Your task to perform on an android device: Search for Italian restaurants on Maps Image 0: 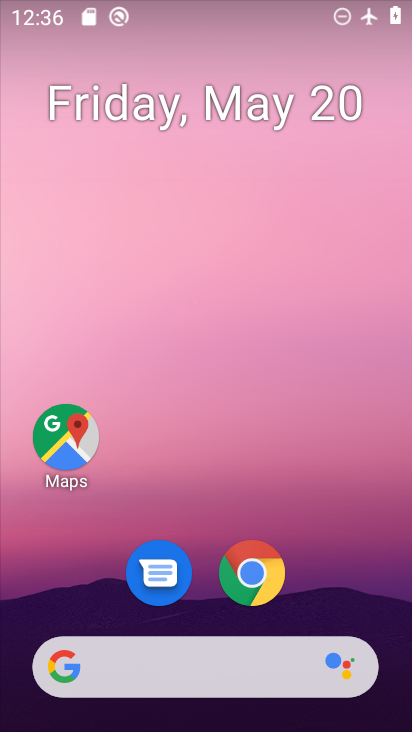
Step 0: drag from (227, 726) to (216, 285)
Your task to perform on an android device: Search for Italian restaurants on Maps Image 1: 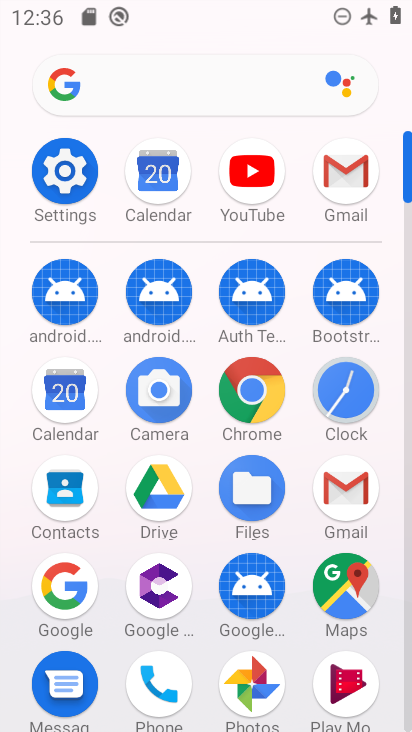
Step 1: click (347, 575)
Your task to perform on an android device: Search for Italian restaurants on Maps Image 2: 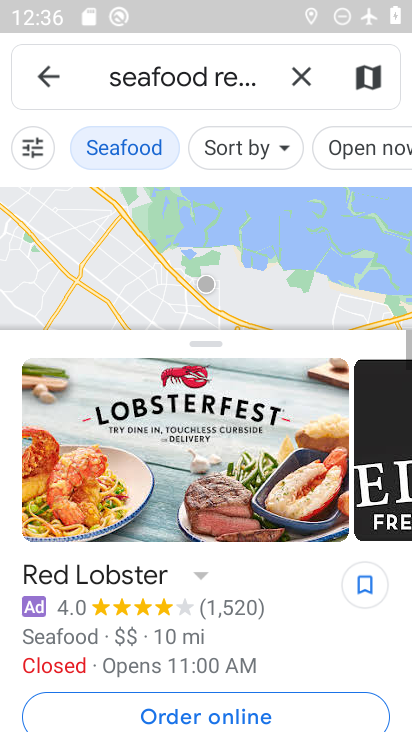
Step 2: click (308, 75)
Your task to perform on an android device: Search for Italian restaurants on Maps Image 3: 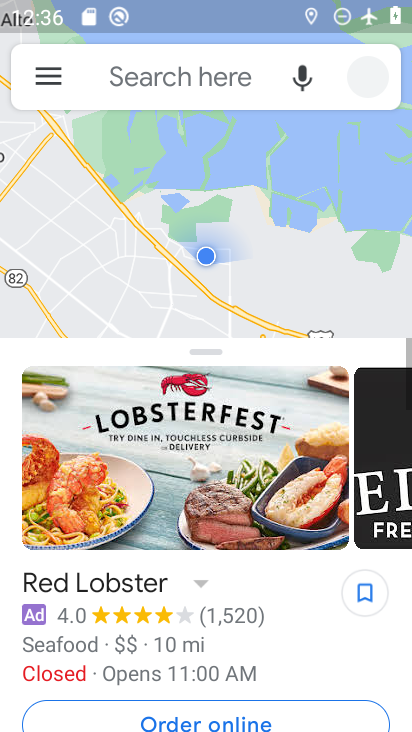
Step 3: click (195, 71)
Your task to perform on an android device: Search for Italian restaurants on Maps Image 4: 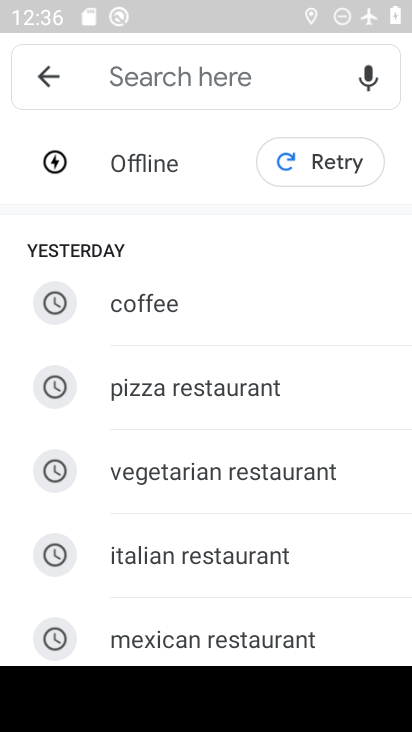
Step 4: type "italian restaurants"
Your task to perform on an android device: Search for Italian restaurants on Maps Image 5: 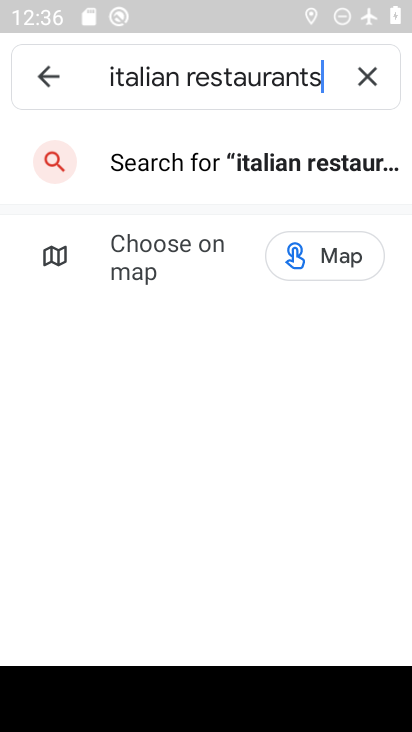
Step 5: click (264, 158)
Your task to perform on an android device: Search for Italian restaurants on Maps Image 6: 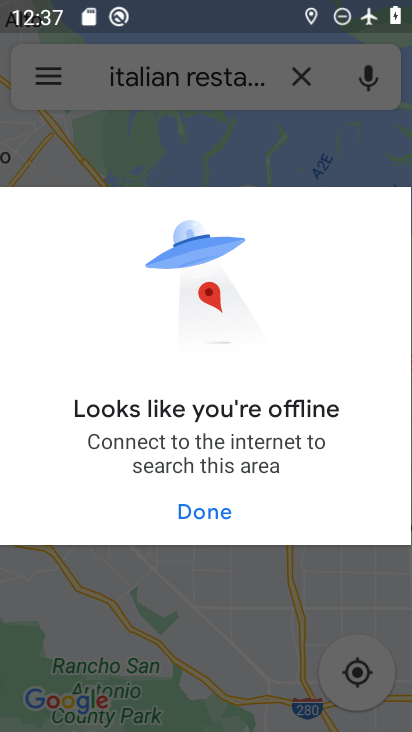
Step 6: task complete